Your task to perform on an android device: turn off location Image 0: 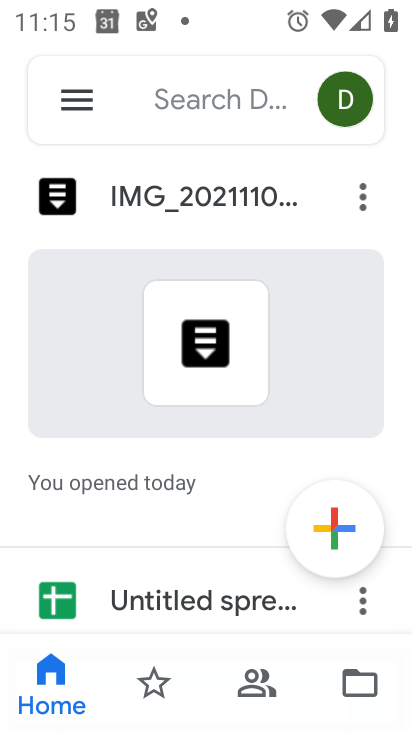
Step 0: press home button
Your task to perform on an android device: turn off location Image 1: 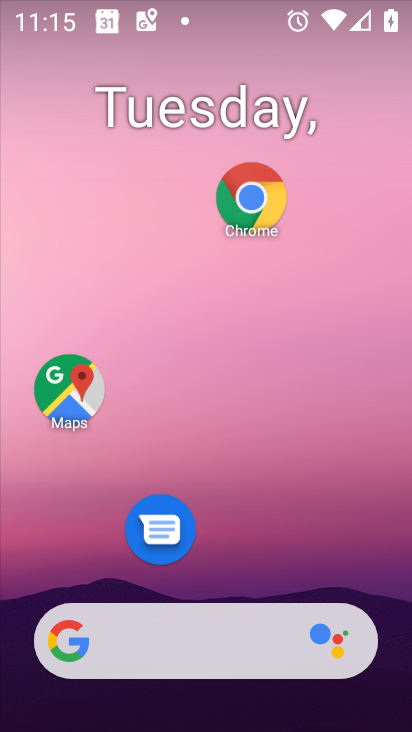
Step 1: drag from (336, 530) to (337, 124)
Your task to perform on an android device: turn off location Image 2: 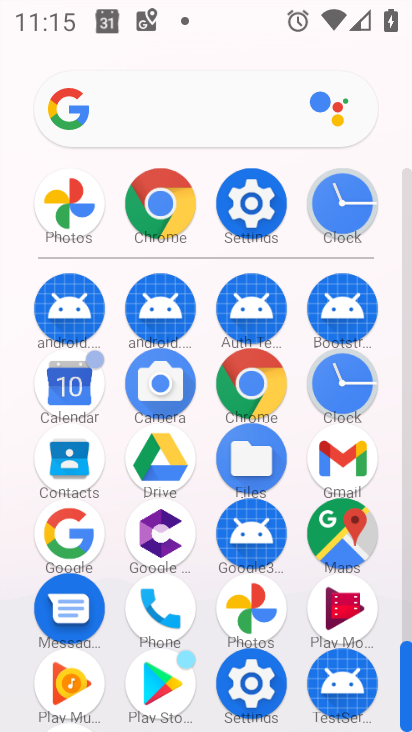
Step 2: click (267, 684)
Your task to perform on an android device: turn off location Image 3: 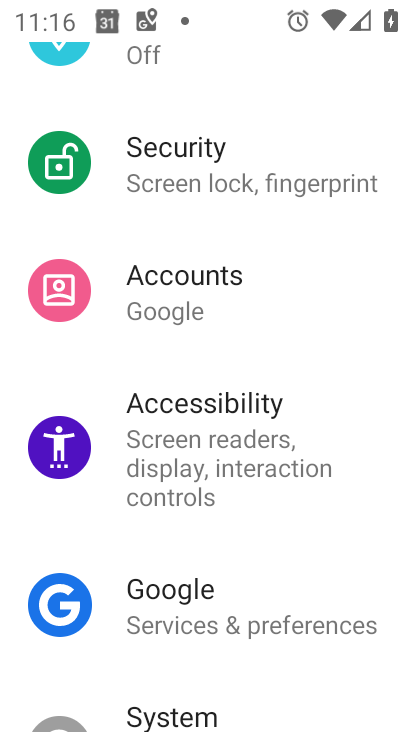
Step 3: task complete